Your task to perform on an android device: Is it going to rain tomorrow? Image 0: 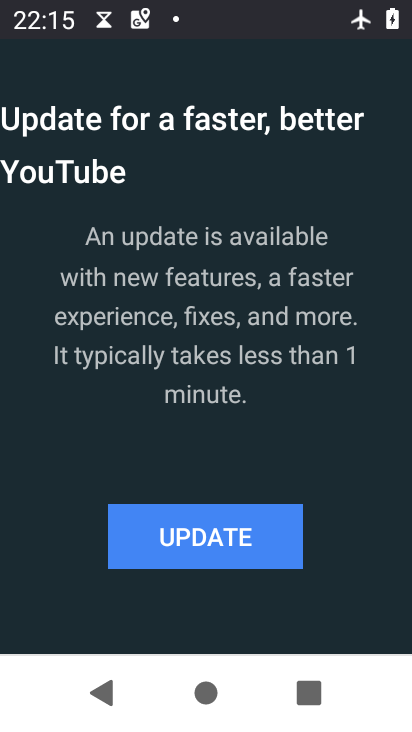
Step 0: click (378, 399)
Your task to perform on an android device: Is it going to rain tomorrow? Image 1: 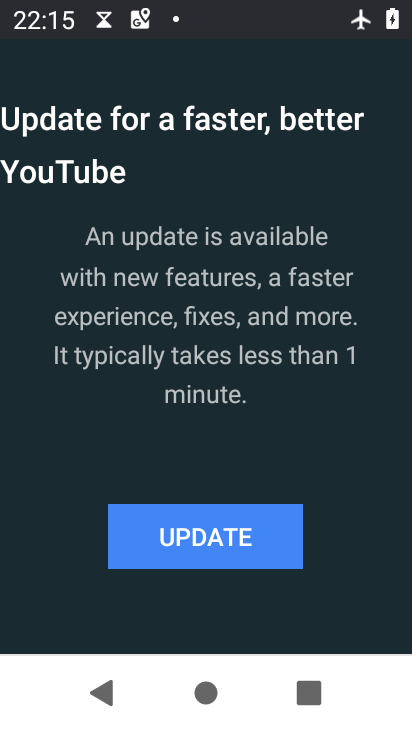
Step 1: press home button
Your task to perform on an android device: Is it going to rain tomorrow? Image 2: 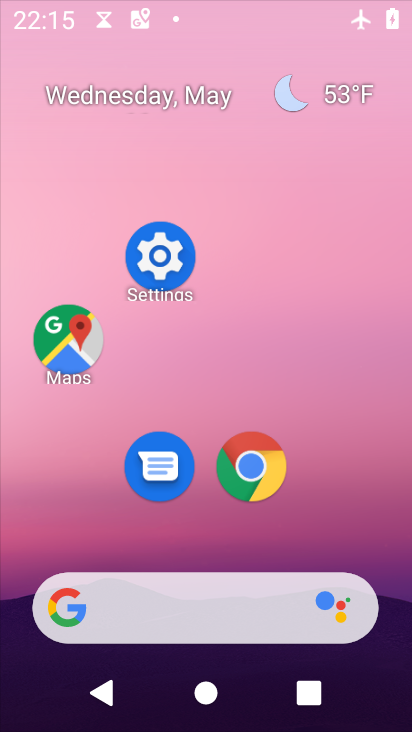
Step 2: drag from (222, 614) to (258, 348)
Your task to perform on an android device: Is it going to rain tomorrow? Image 3: 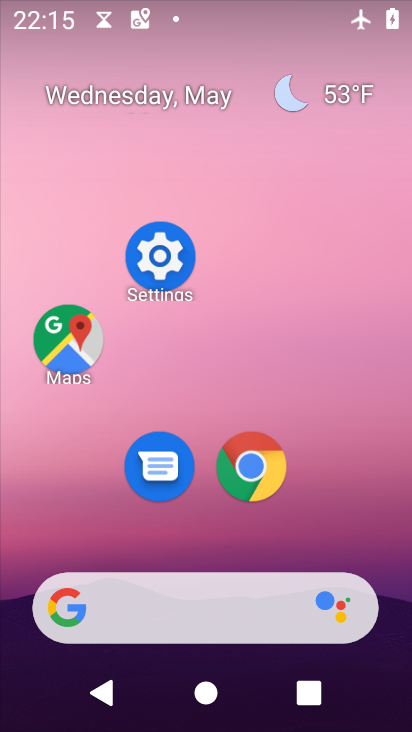
Step 3: drag from (223, 572) to (291, 12)
Your task to perform on an android device: Is it going to rain tomorrow? Image 4: 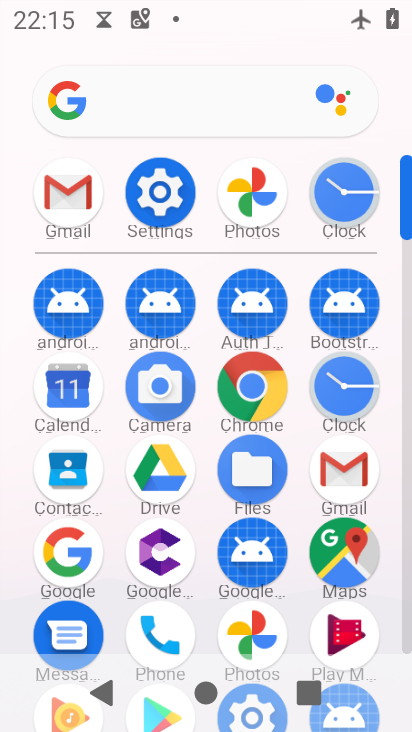
Step 4: click (176, 103)
Your task to perform on an android device: Is it going to rain tomorrow? Image 5: 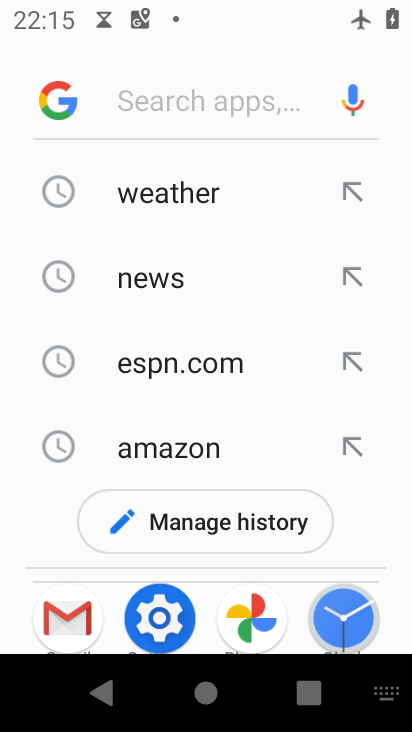
Step 5: type "rain tomorrow"
Your task to perform on an android device: Is it going to rain tomorrow? Image 6: 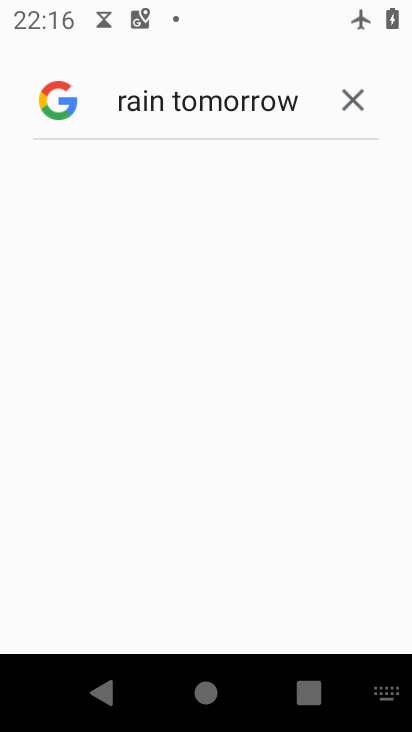
Step 6: task complete